Your task to perform on an android device: turn off wifi Image 0: 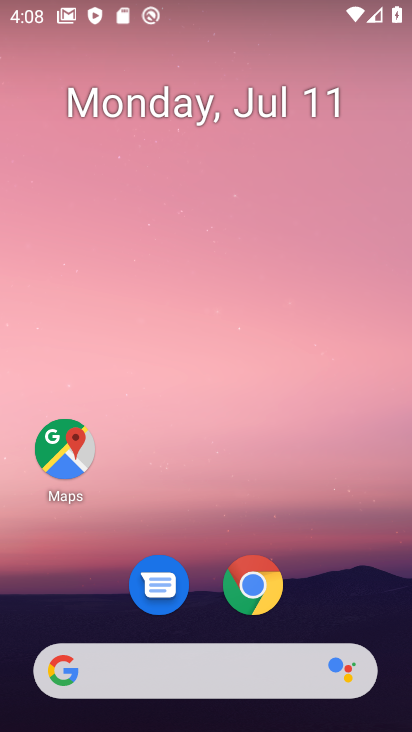
Step 0: drag from (309, 550) to (336, 53)
Your task to perform on an android device: turn off wifi Image 1: 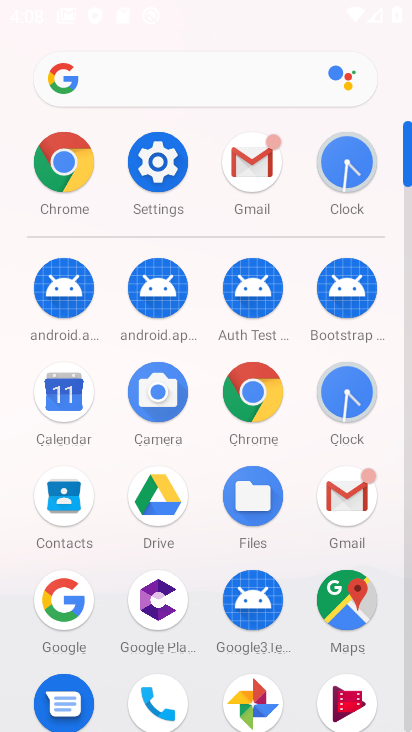
Step 1: click (158, 172)
Your task to perform on an android device: turn off wifi Image 2: 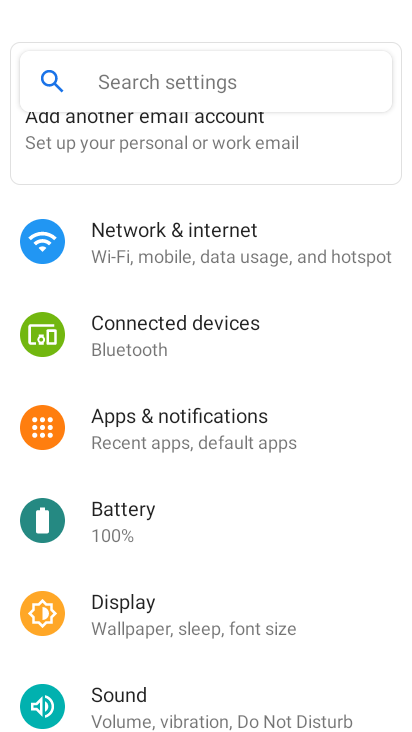
Step 2: click (178, 240)
Your task to perform on an android device: turn off wifi Image 3: 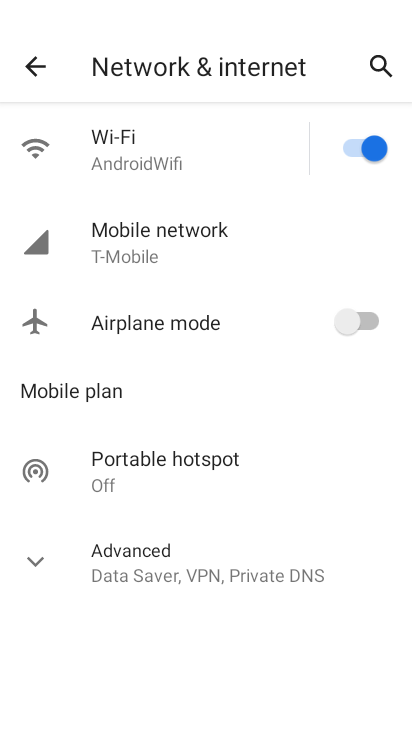
Step 3: click (157, 151)
Your task to perform on an android device: turn off wifi Image 4: 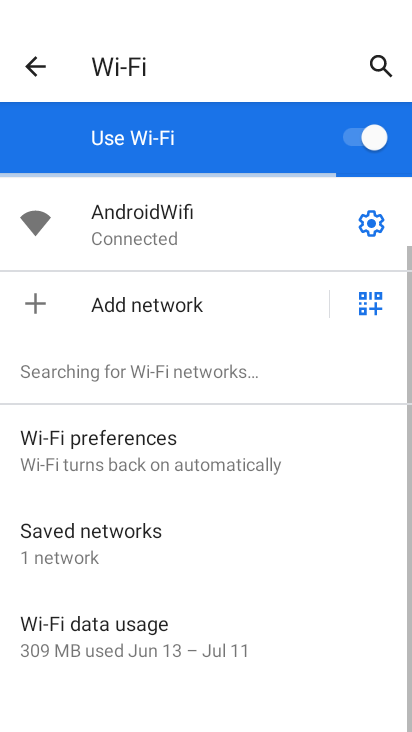
Step 4: click (357, 136)
Your task to perform on an android device: turn off wifi Image 5: 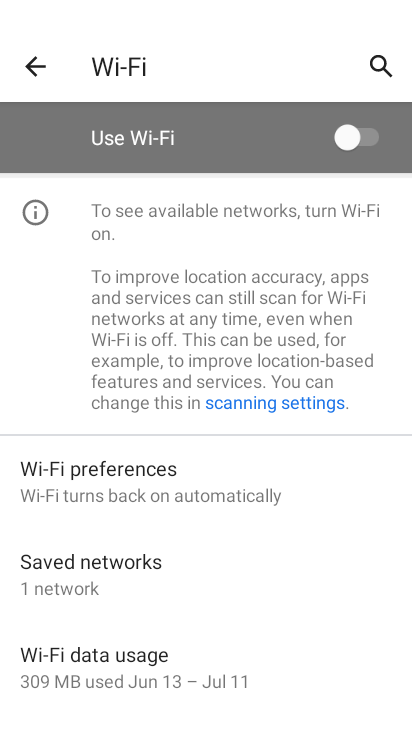
Step 5: task complete